Your task to perform on an android device: change the upload size in google photos Image 0: 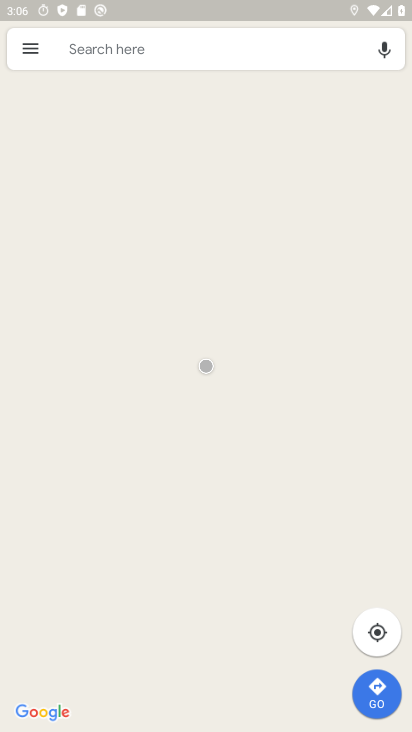
Step 0: drag from (345, 673) to (301, 138)
Your task to perform on an android device: change the upload size in google photos Image 1: 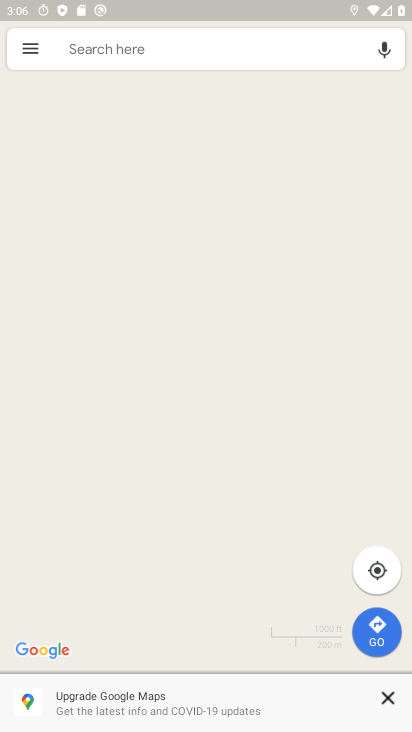
Step 1: press back button
Your task to perform on an android device: change the upload size in google photos Image 2: 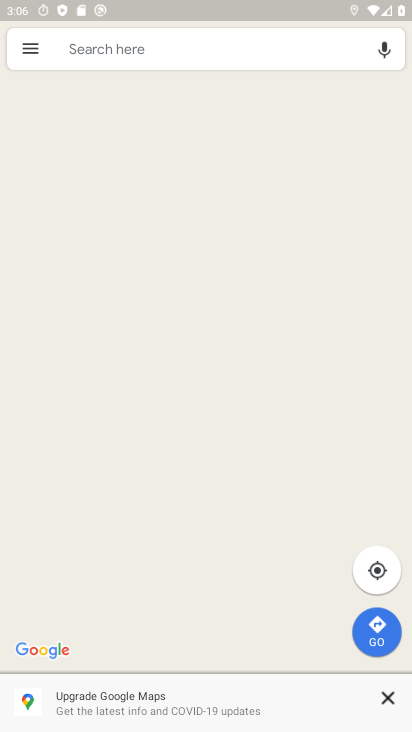
Step 2: click (24, 50)
Your task to perform on an android device: change the upload size in google photos Image 3: 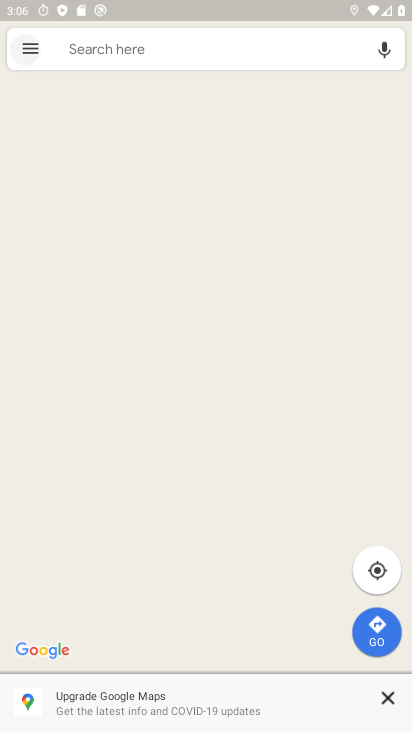
Step 3: click (28, 55)
Your task to perform on an android device: change the upload size in google photos Image 4: 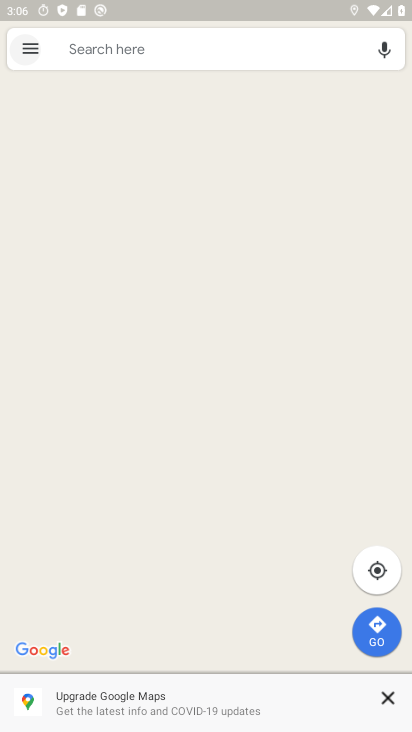
Step 4: click (28, 55)
Your task to perform on an android device: change the upload size in google photos Image 5: 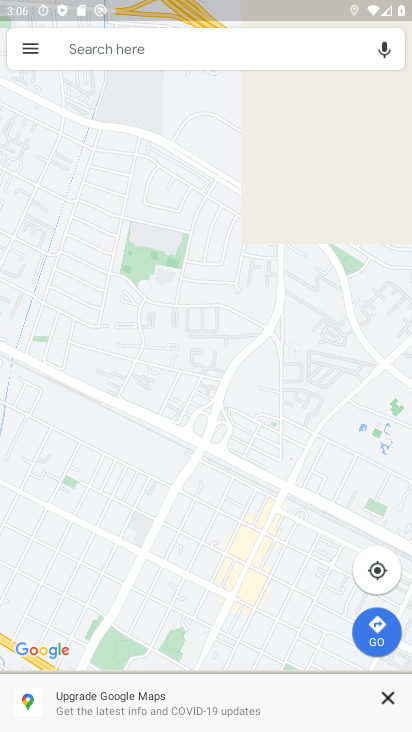
Step 5: click (29, 51)
Your task to perform on an android device: change the upload size in google photos Image 6: 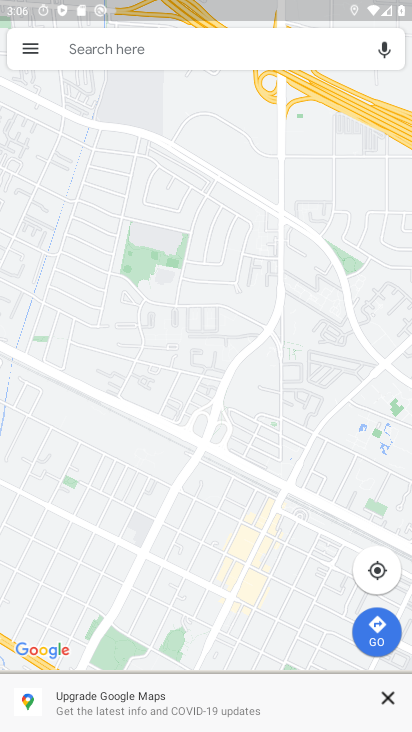
Step 6: click (29, 51)
Your task to perform on an android device: change the upload size in google photos Image 7: 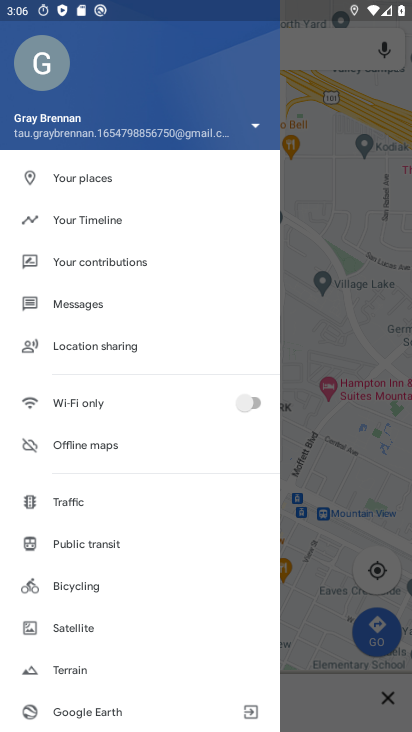
Step 7: drag from (125, 546) to (136, 220)
Your task to perform on an android device: change the upload size in google photos Image 8: 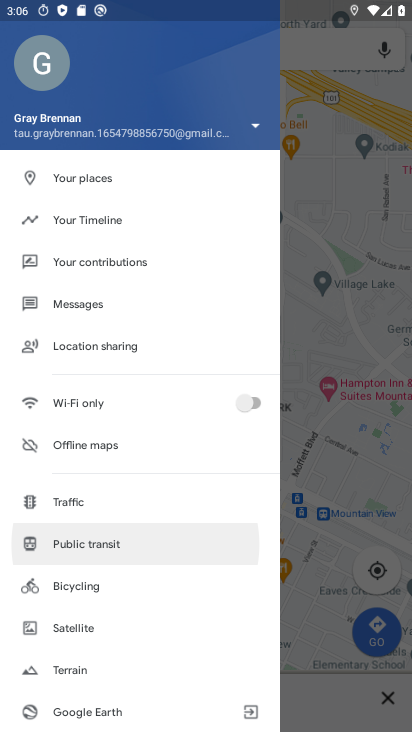
Step 8: drag from (140, 353) to (117, 140)
Your task to perform on an android device: change the upload size in google photos Image 9: 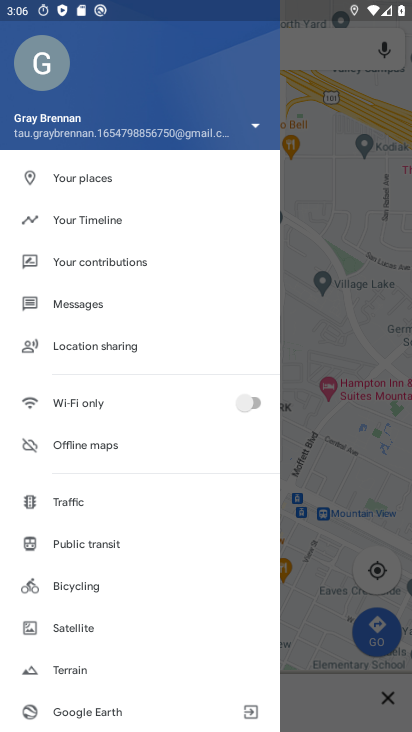
Step 9: click (295, 310)
Your task to perform on an android device: change the upload size in google photos Image 10: 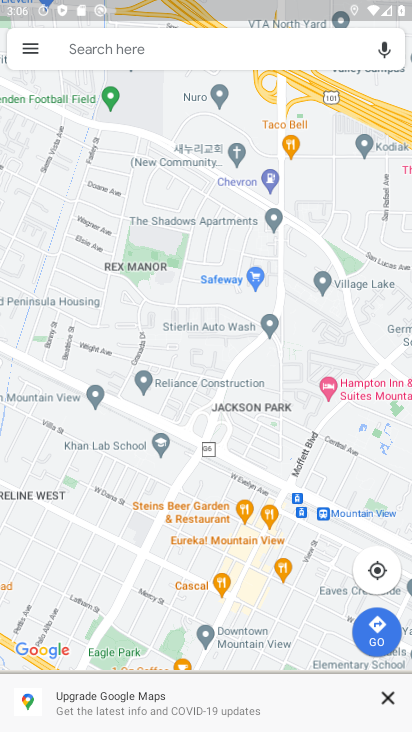
Step 10: press back button
Your task to perform on an android device: change the upload size in google photos Image 11: 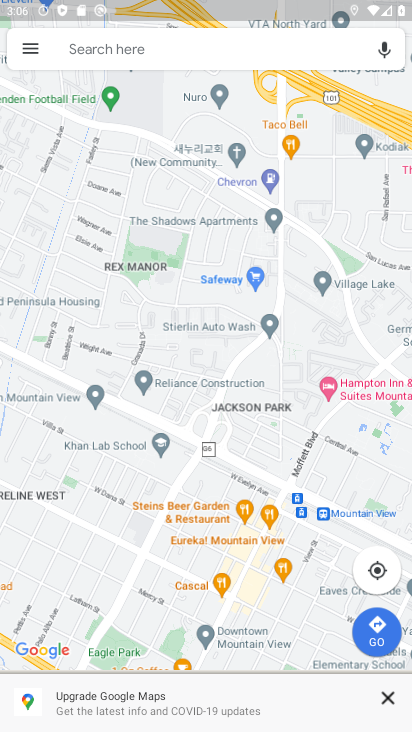
Step 11: press back button
Your task to perform on an android device: change the upload size in google photos Image 12: 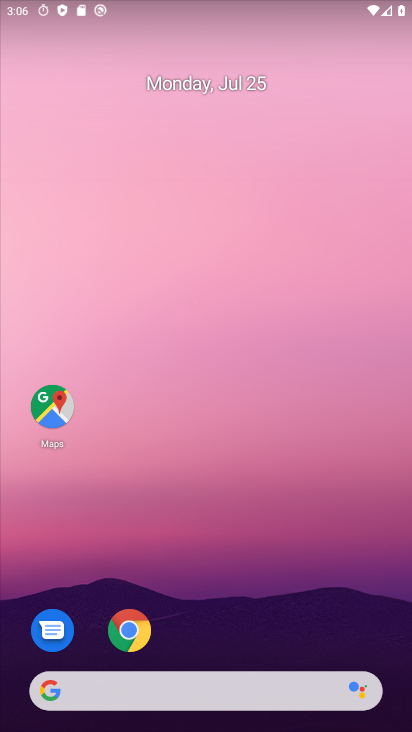
Step 12: drag from (233, 545) to (180, 109)
Your task to perform on an android device: change the upload size in google photos Image 13: 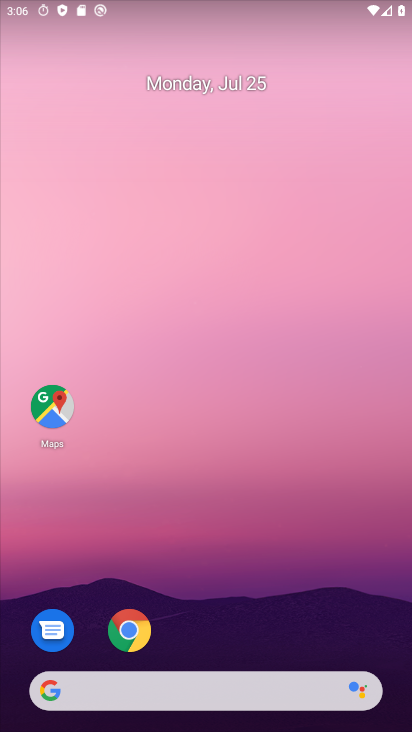
Step 13: drag from (189, 535) to (192, 182)
Your task to perform on an android device: change the upload size in google photos Image 14: 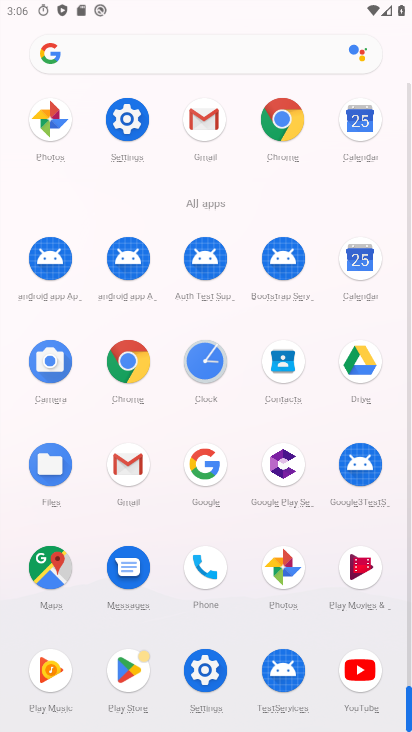
Step 14: click (283, 569)
Your task to perform on an android device: change the upload size in google photos Image 15: 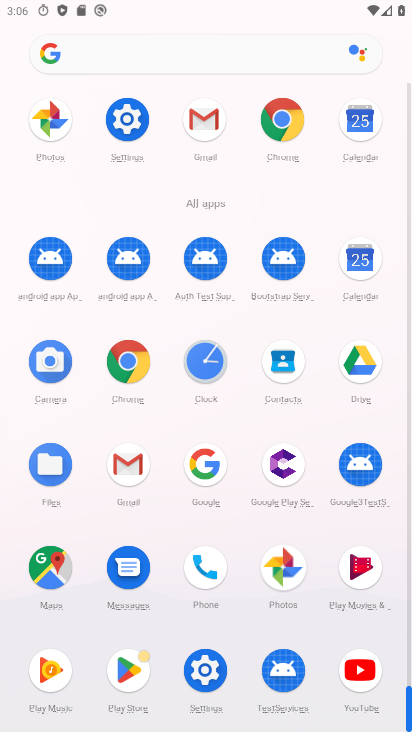
Step 15: click (283, 569)
Your task to perform on an android device: change the upload size in google photos Image 16: 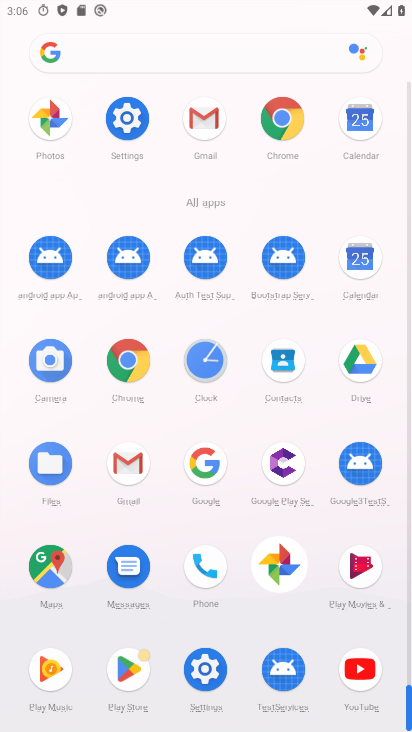
Step 16: click (281, 569)
Your task to perform on an android device: change the upload size in google photos Image 17: 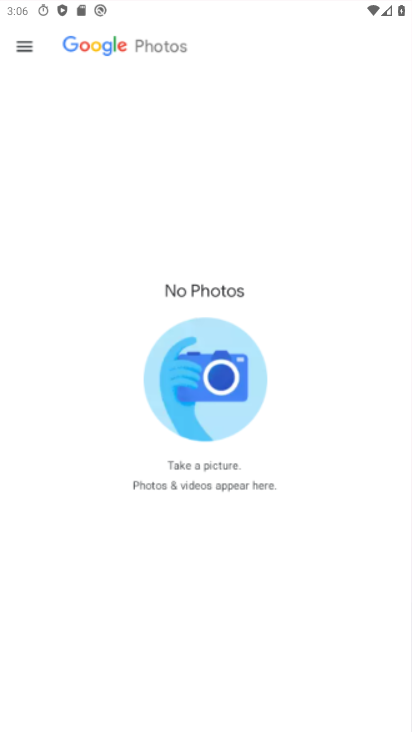
Step 17: click (278, 578)
Your task to perform on an android device: change the upload size in google photos Image 18: 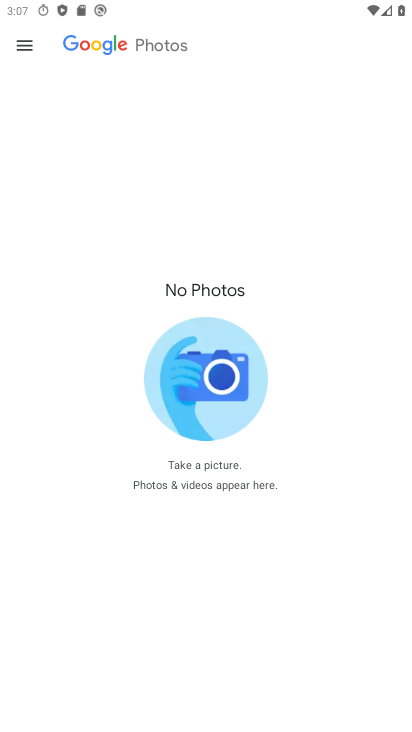
Step 18: click (29, 34)
Your task to perform on an android device: change the upload size in google photos Image 19: 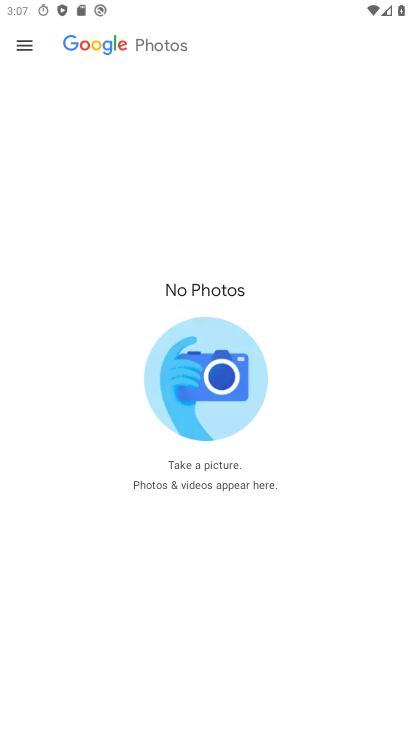
Step 19: click (29, 47)
Your task to perform on an android device: change the upload size in google photos Image 20: 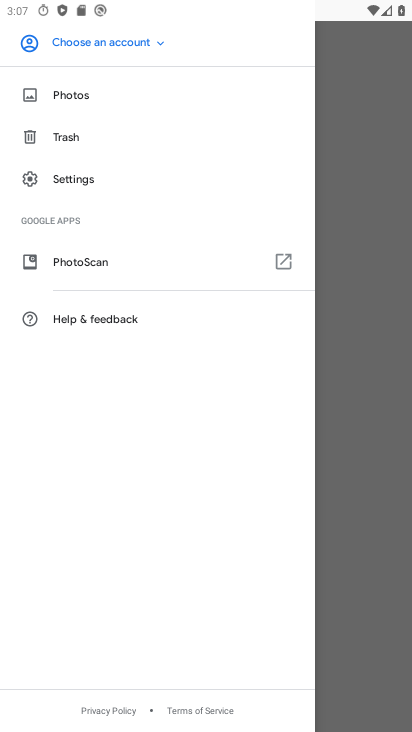
Step 20: click (75, 180)
Your task to perform on an android device: change the upload size in google photos Image 21: 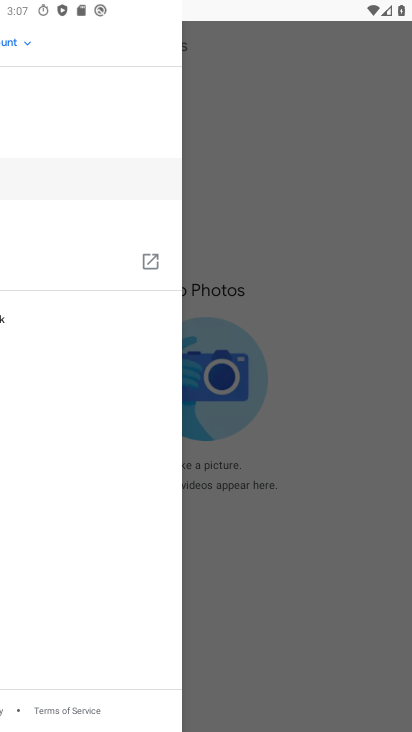
Step 21: click (76, 179)
Your task to perform on an android device: change the upload size in google photos Image 22: 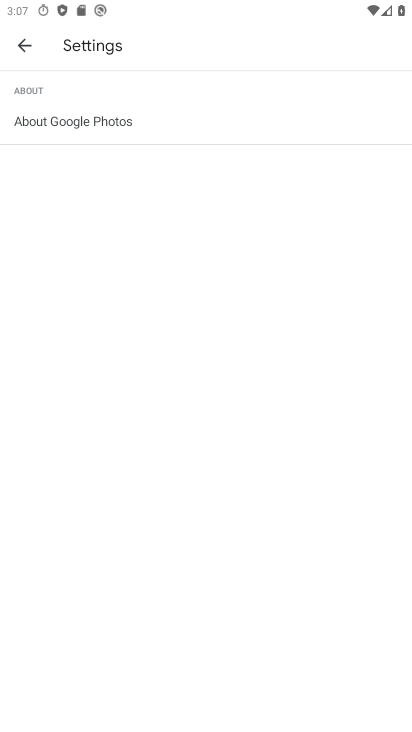
Step 22: click (80, 111)
Your task to perform on an android device: change the upload size in google photos Image 23: 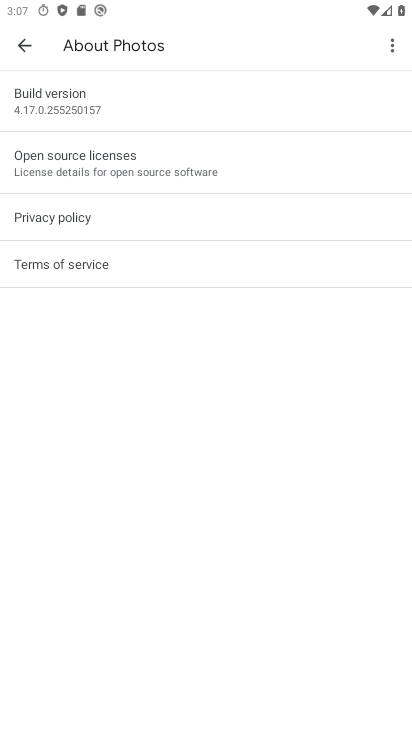
Step 23: task complete